Your task to perform on an android device: Search for vegetarian restaurants on Maps Image 0: 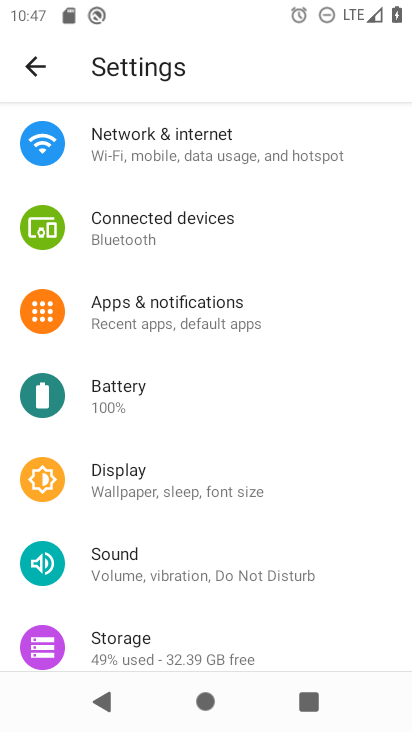
Step 0: press home button
Your task to perform on an android device: Search for vegetarian restaurants on Maps Image 1: 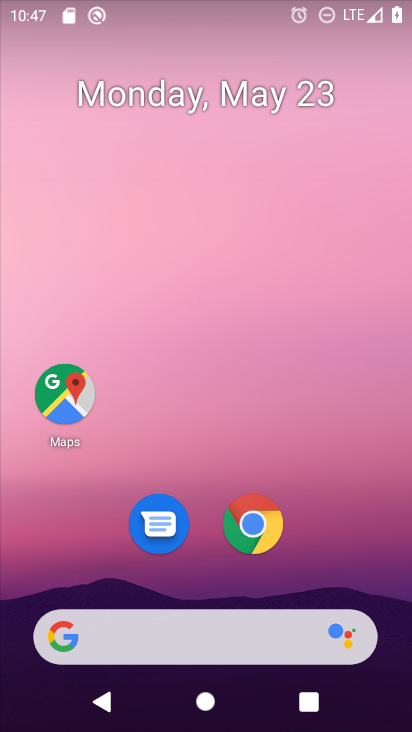
Step 1: click (65, 395)
Your task to perform on an android device: Search for vegetarian restaurants on Maps Image 2: 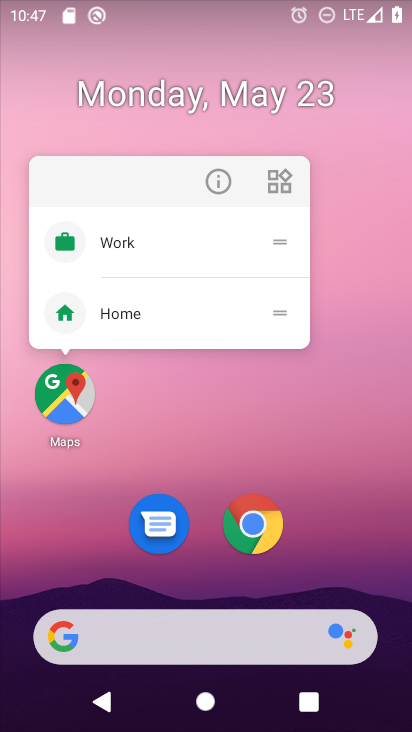
Step 2: click (65, 394)
Your task to perform on an android device: Search for vegetarian restaurants on Maps Image 3: 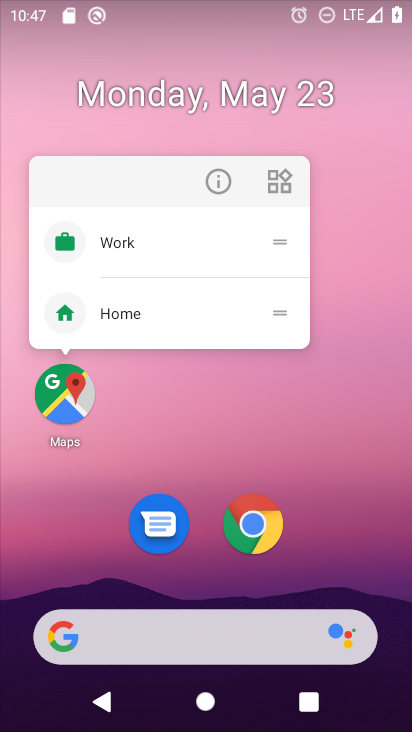
Step 3: click (65, 394)
Your task to perform on an android device: Search for vegetarian restaurants on Maps Image 4: 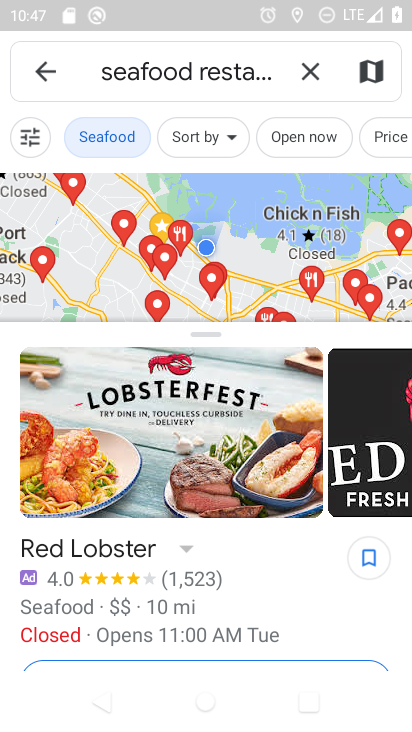
Step 4: click (301, 67)
Your task to perform on an android device: Search for vegetarian restaurants on Maps Image 5: 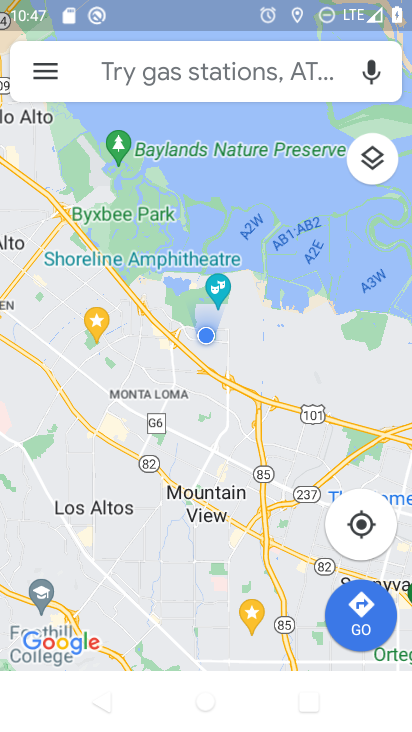
Step 5: click (224, 62)
Your task to perform on an android device: Search for vegetarian restaurants on Maps Image 6: 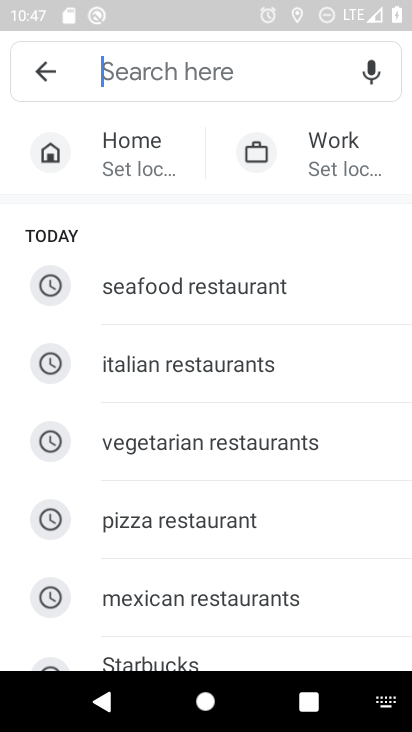
Step 6: click (183, 441)
Your task to perform on an android device: Search for vegetarian restaurants on Maps Image 7: 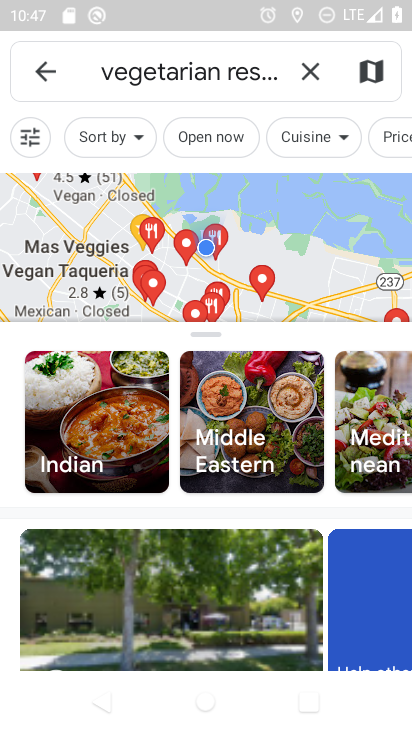
Step 7: task complete